Your task to perform on an android device: snooze an email in the gmail app Image 0: 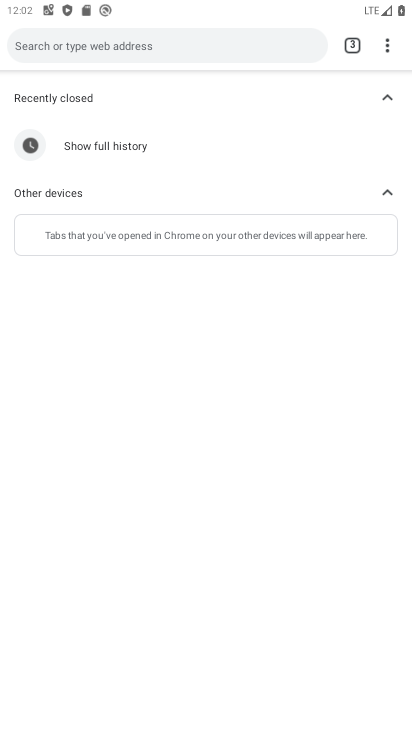
Step 0: press home button
Your task to perform on an android device: snooze an email in the gmail app Image 1: 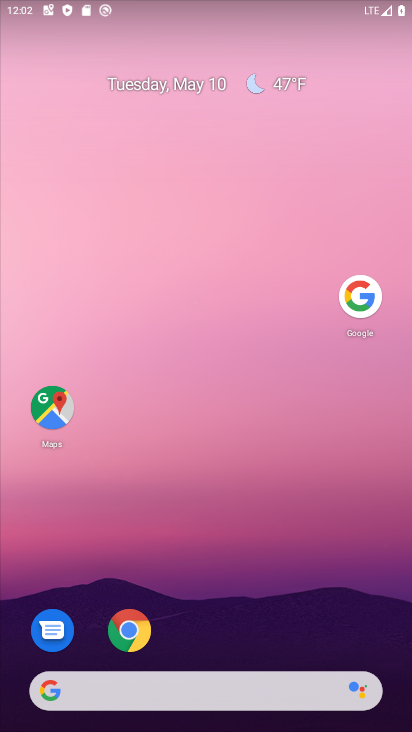
Step 1: drag from (158, 695) to (312, 183)
Your task to perform on an android device: snooze an email in the gmail app Image 2: 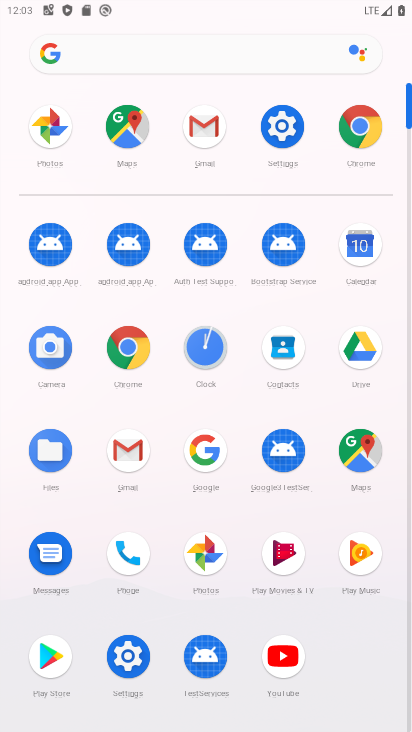
Step 2: click (210, 131)
Your task to perform on an android device: snooze an email in the gmail app Image 3: 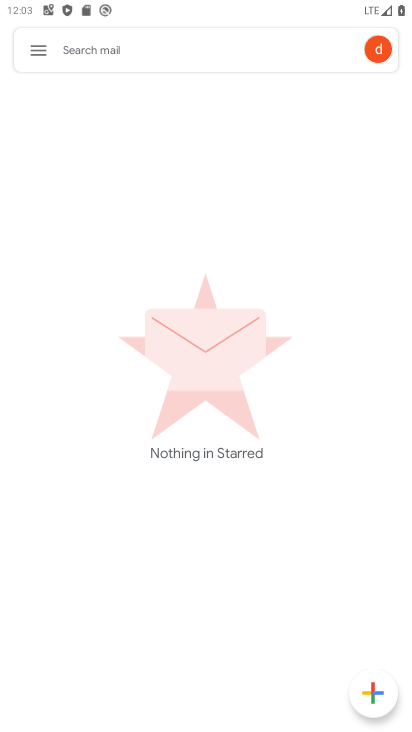
Step 3: click (39, 49)
Your task to perform on an android device: snooze an email in the gmail app Image 4: 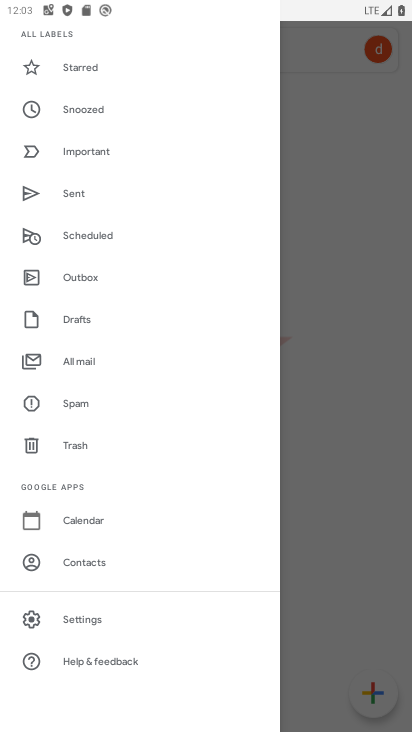
Step 4: click (90, 363)
Your task to perform on an android device: snooze an email in the gmail app Image 5: 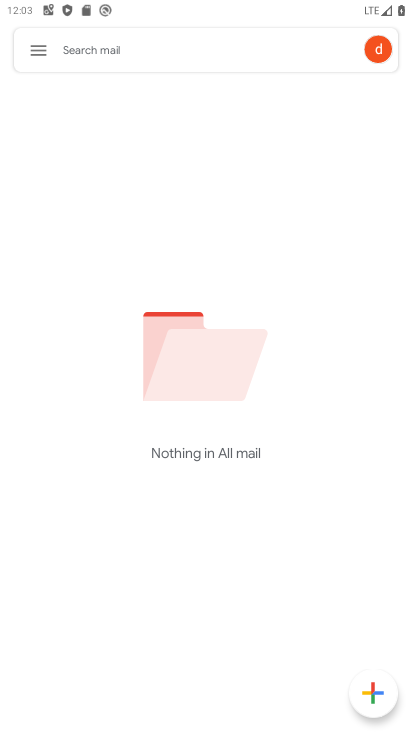
Step 5: task complete